Your task to perform on an android device: Go to Amazon Image 0: 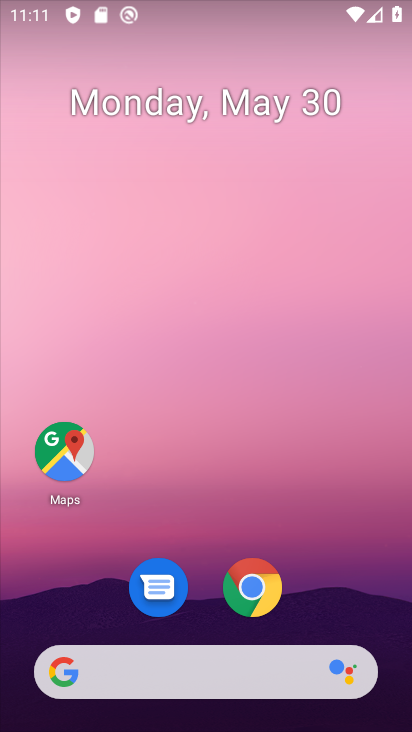
Step 0: click (162, 663)
Your task to perform on an android device: Go to Amazon Image 1: 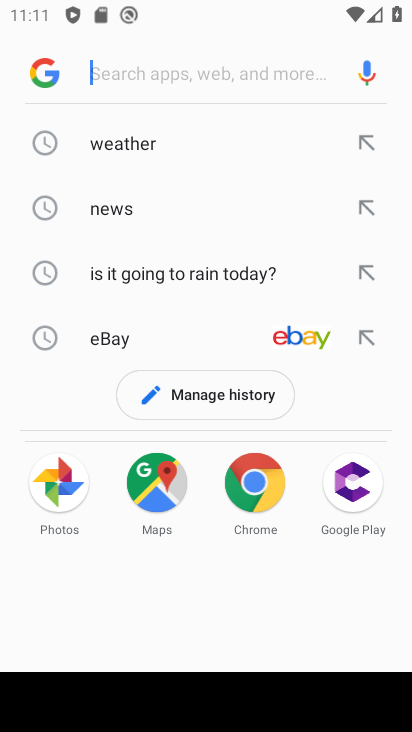
Step 1: type "amzon"
Your task to perform on an android device: Go to Amazon Image 2: 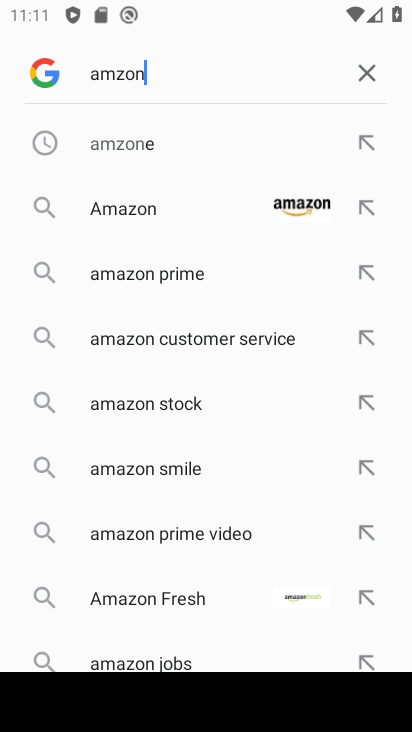
Step 2: click (185, 194)
Your task to perform on an android device: Go to Amazon Image 3: 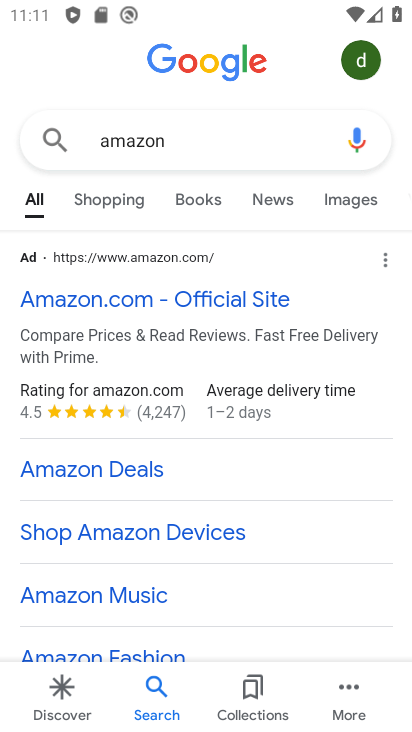
Step 3: click (153, 288)
Your task to perform on an android device: Go to Amazon Image 4: 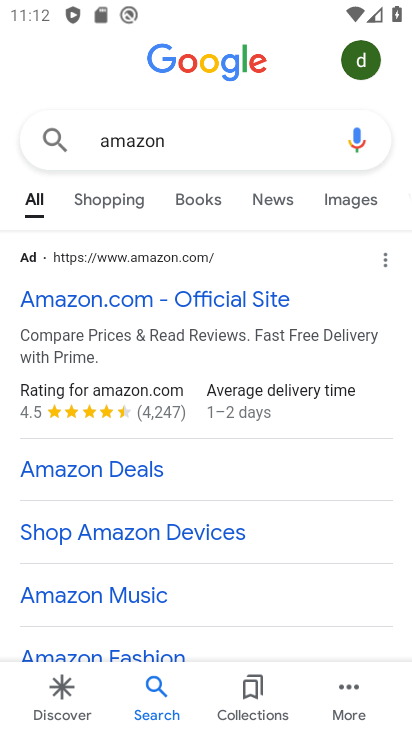
Step 4: click (161, 300)
Your task to perform on an android device: Go to Amazon Image 5: 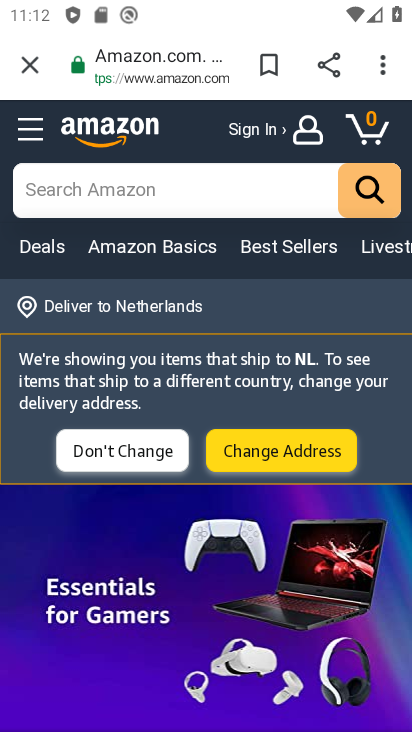
Step 5: task complete